Your task to perform on an android device: Open the calendar app, open the side menu, and click the "Day" option Image 0: 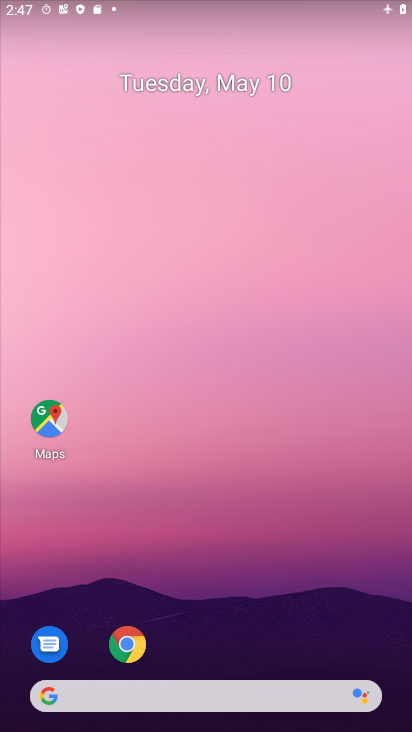
Step 0: drag from (256, 630) to (299, 216)
Your task to perform on an android device: Open the calendar app, open the side menu, and click the "Day" option Image 1: 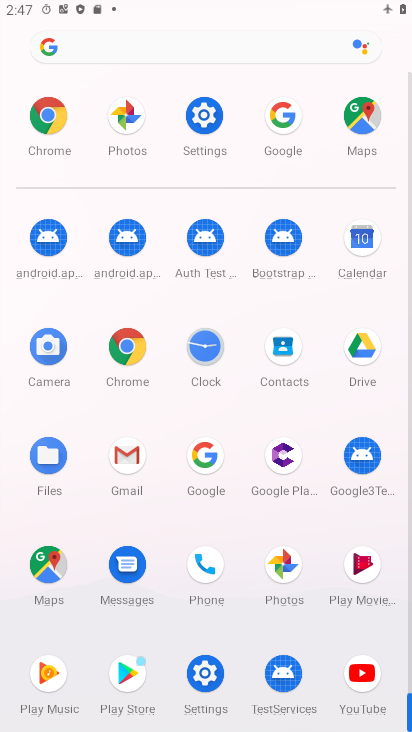
Step 1: click (369, 245)
Your task to perform on an android device: Open the calendar app, open the side menu, and click the "Day" option Image 2: 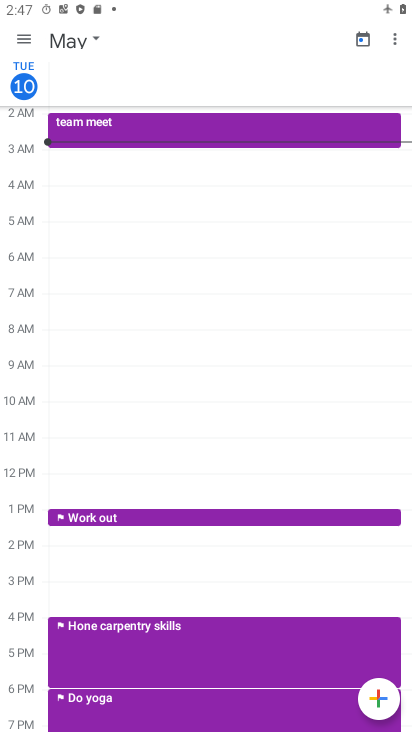
Step 2: click (30, 43)
Your task to perform on an android device: Open the calendar app, open the side menu, and click the "Day" option Image 3: 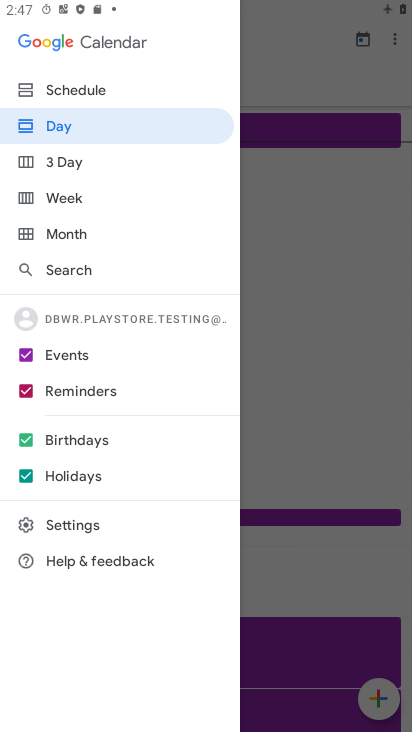
Step 3: click (88, 129)
Your task to perform on an android device: Open the calendar app, open the side menu, and click the "Day" option Image 4: 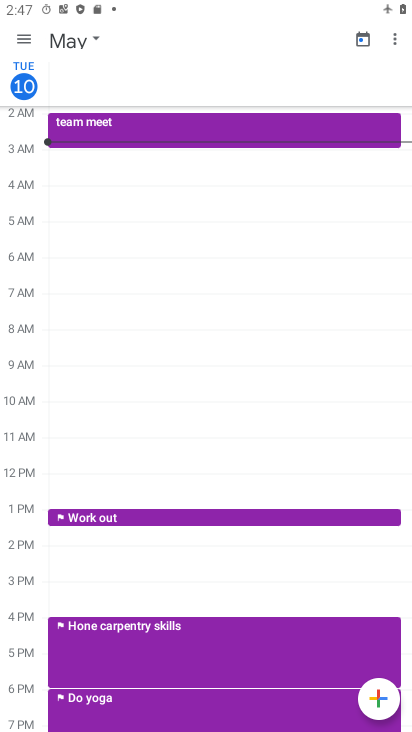
Step 4: task complete